Your task to perform on an android device: Open the Play Movies app and select the watchlist tab. Image 0: 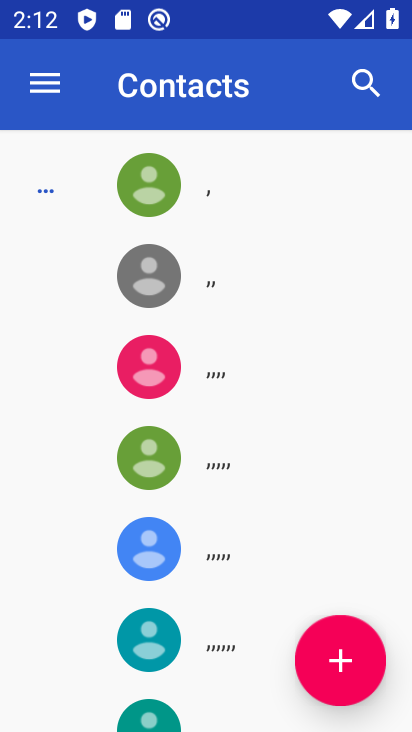
Step 0: press home button
Your task to perform on an android device: Open the Play Movies app and select the watchlist tab. Image 1: 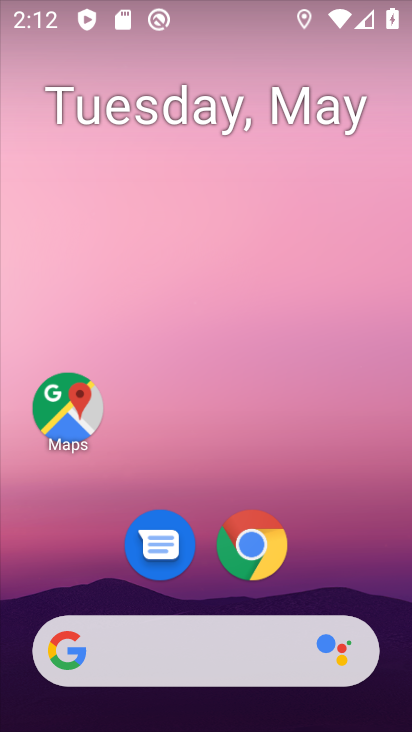
Step 1: drag from (195, 590) to (252, 3)
Your task to perform on an android device: Open the Play Movies app and select the watchlist tab. Image 2: 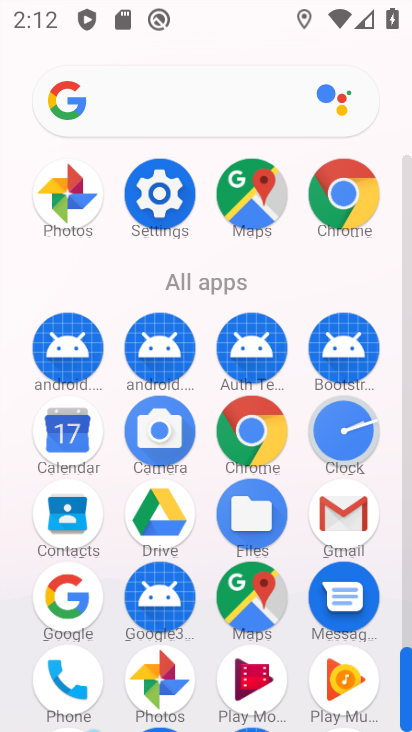
Step 2: click (261, 660)
Your task to perform on an android device: Open the Play Movies app and select the watchlist tab. Image 3: 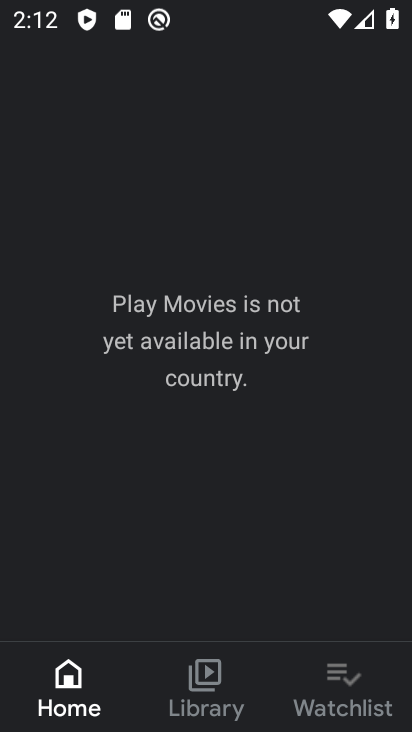
Step 3: click (348, 690)
Your task to perform on an android device: Open the Play Movies app and select the watchlist tab. Image 4: 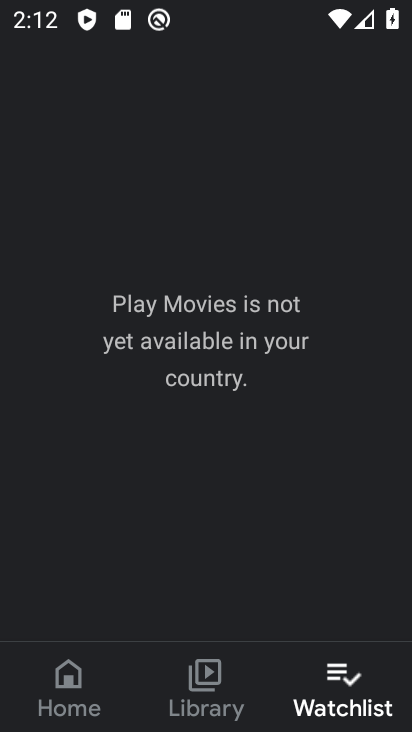
Step 4: task complete